Your task to perform on an android device: Open location settings Image 0: 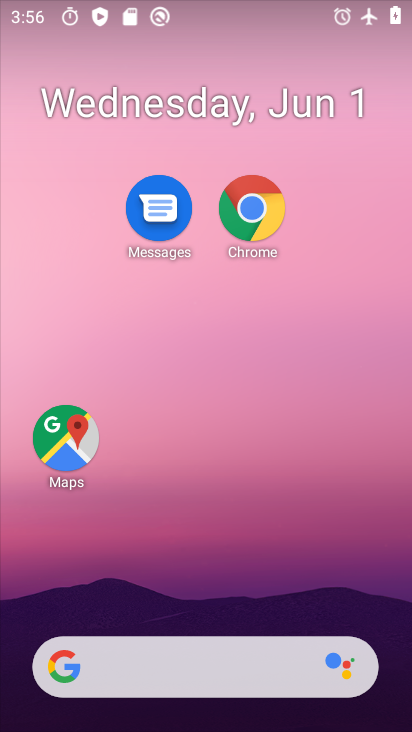
Step 0: drag from (212, 594) to (214, 221)
Your task to perform on an android device: Open location settings Image 1: 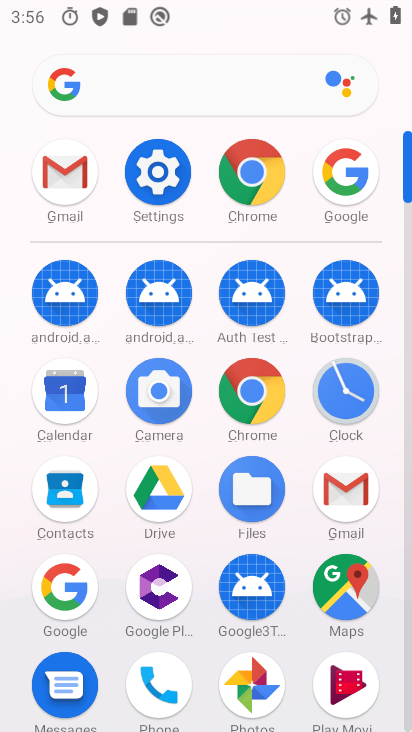
Step 1: click (168, 175)
Your task to perform on an android device: Open location settings Image 2: 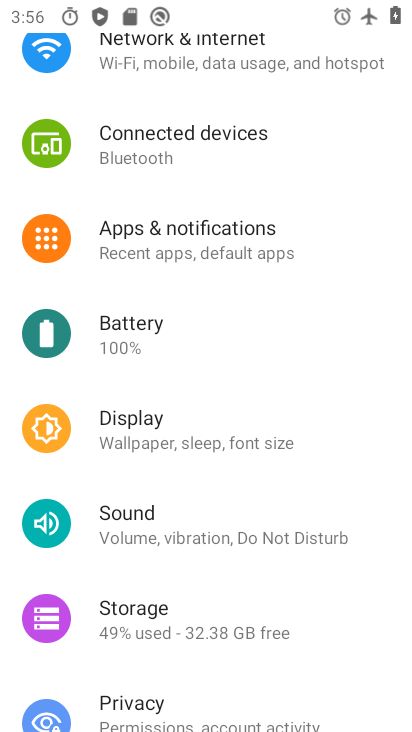
Step 2: drag from (206, 636) to (257, 275)
Your task to perform on an android device: Open location settings Image 3: 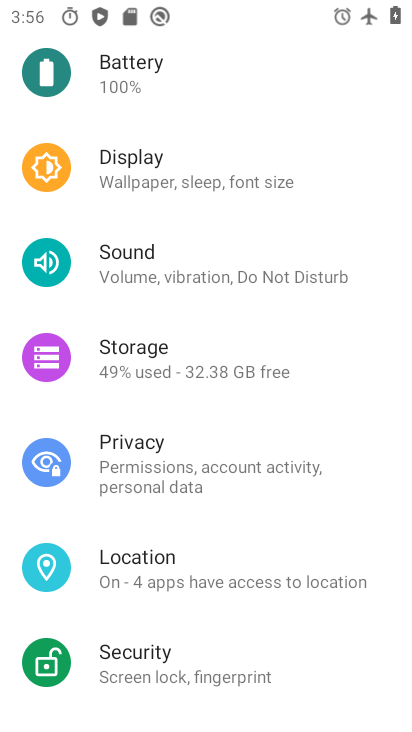
Step 3: click (235, 557)
Your task to perform on an android device: Open location settings Image 4: 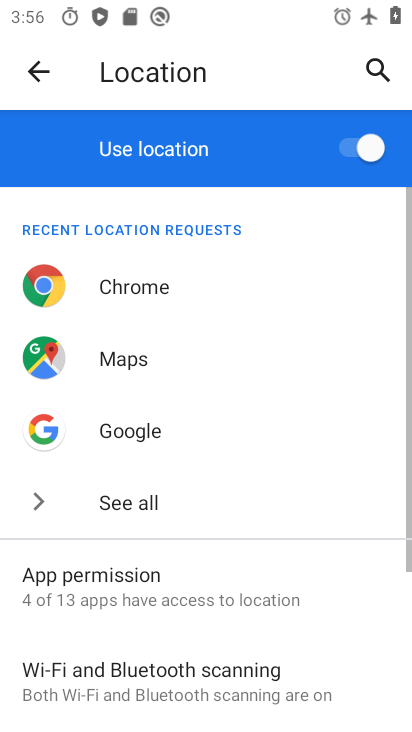
Step 4: task complete